Your task to perform on an android device: add a contact Image 0: 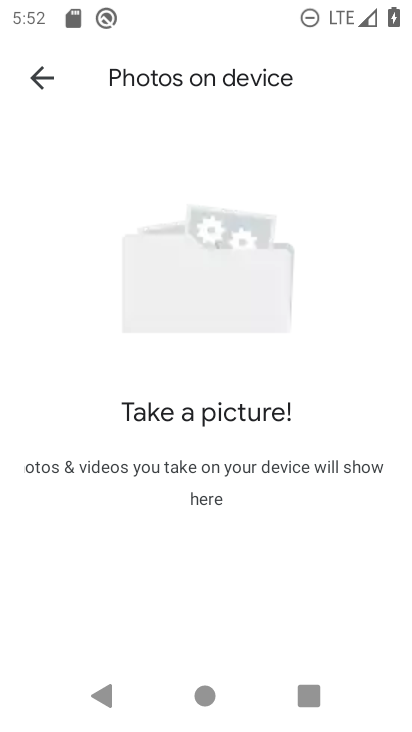
Step 0: press home button
Your task to perform on an android device: add a contact Image 1: 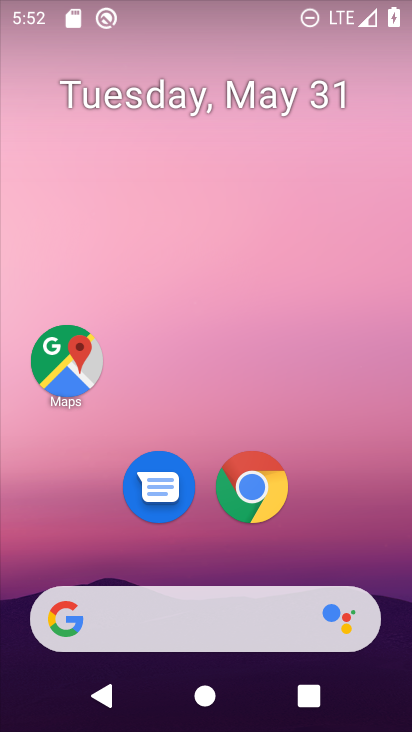
Step 1: drag from (323, 537) to (215, 136)
Your task to perform on an android device: add a contact Image 2: 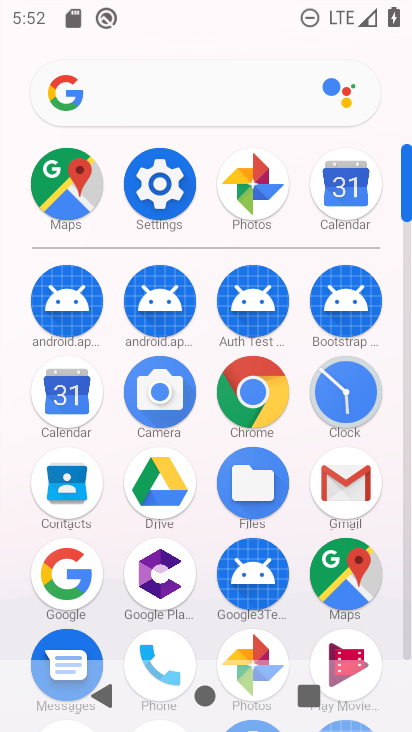
Step 2: click (65, 489)
Your task to perform on an android device: add a contact Image 3: 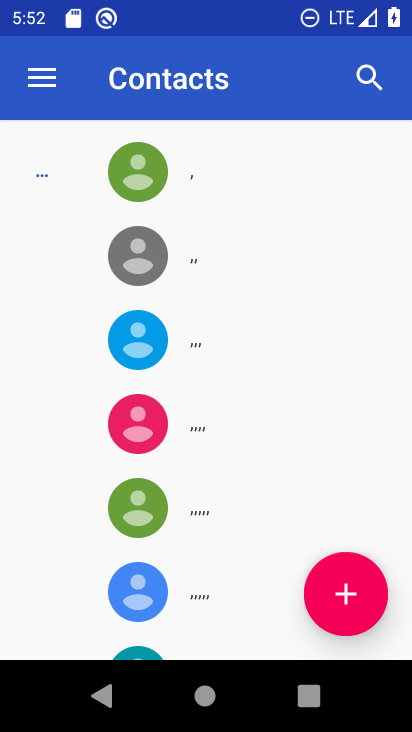
Step 3: click (344, 589)
Your task to perform on an android device: add a contact Image 4: 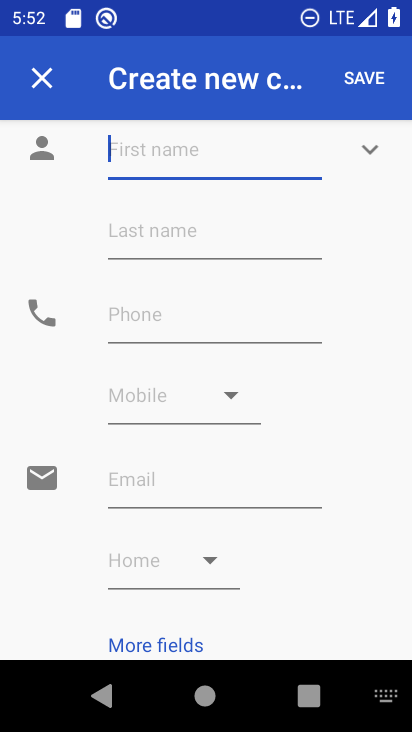
Step 4: type "kjhgjhg"
Your task to perform on an android device: add a contact Image 5: 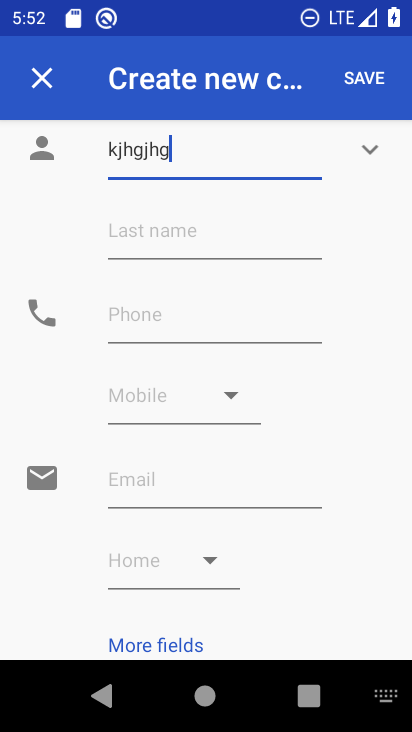
Step 5: click (174, 317)
Your task to perform on an android device: add a contact Image 6: 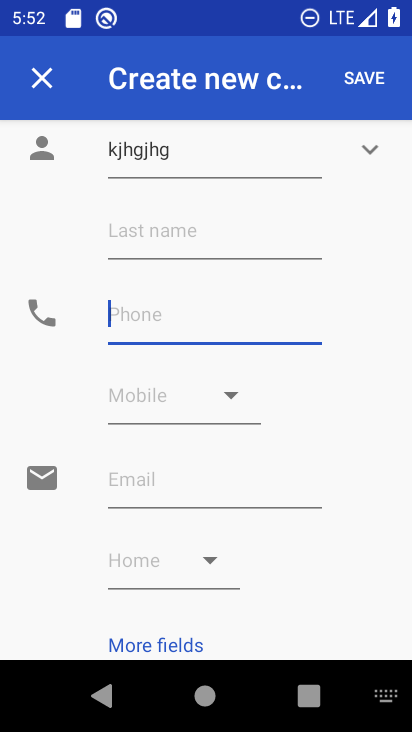
Step 6: type "7676667"
Your task to perform on an android device: add a contact Image 7: 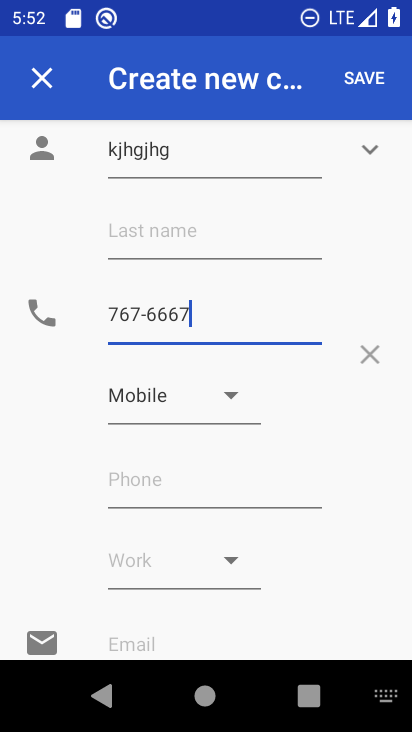
Step 7: click (362, 76)
Your task to perform on an android device: add a contact Image 8: 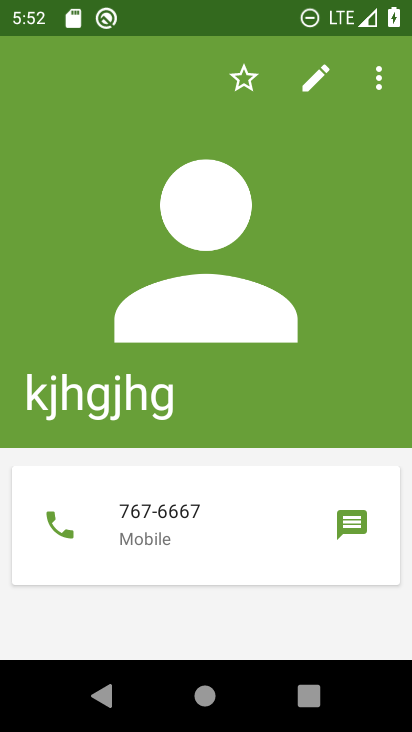
Step 8: task complete